Your task to perform on an android device: turn pop-ups on in chrome Image 0: 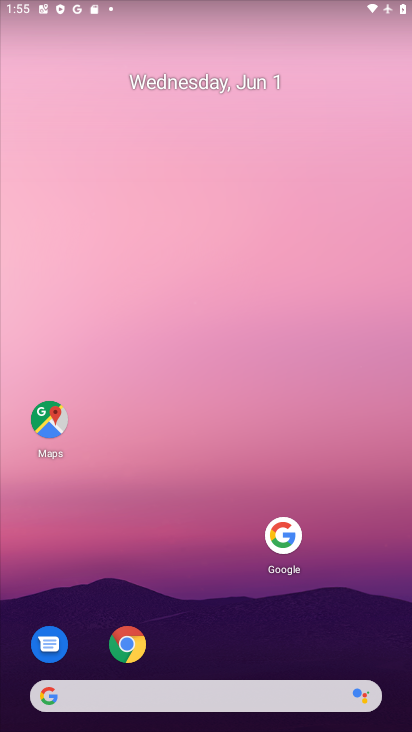
Step 0: press home button
Your task to perform on an android device: turn pop-ups on in chrome Image 1: 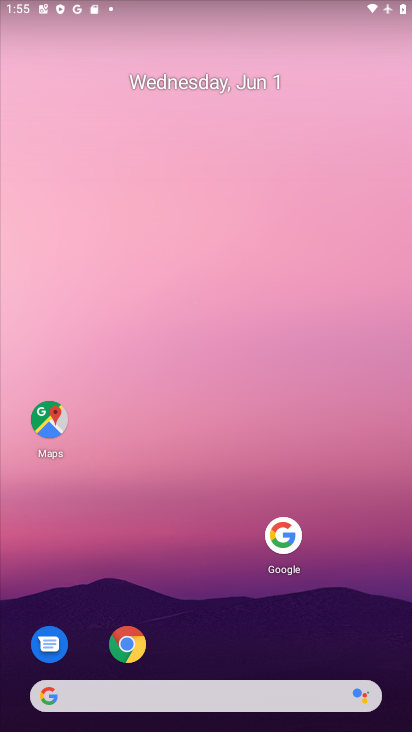
Step 1: click (128, 647)
Your task to perform on an android device: turn pop-ups on in chrome Image 2: 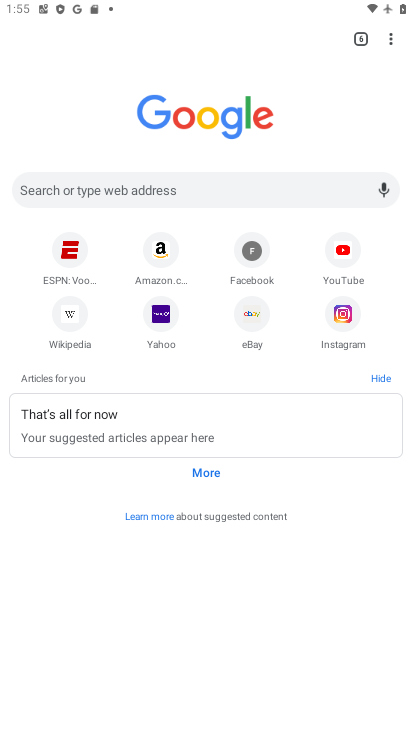
Step 2: drag from (391, 40) to (299, 357)
Your task to perform on an android device: turn pop-ups on in chrome Image 3: 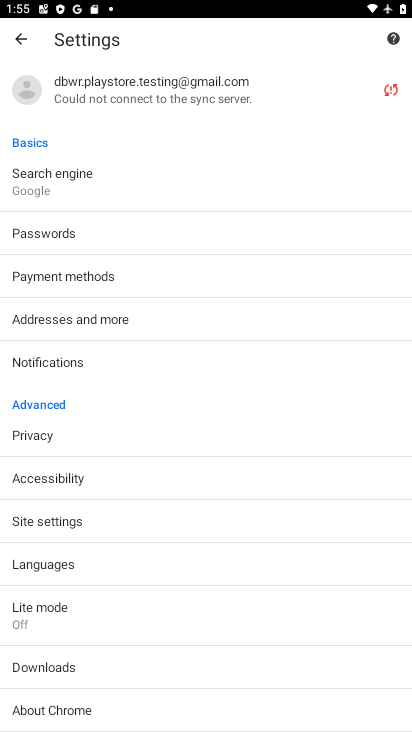
Step 3: click (66, 524)
Your task to perform on an android device: turn pop-ups on in chrome Image 4: 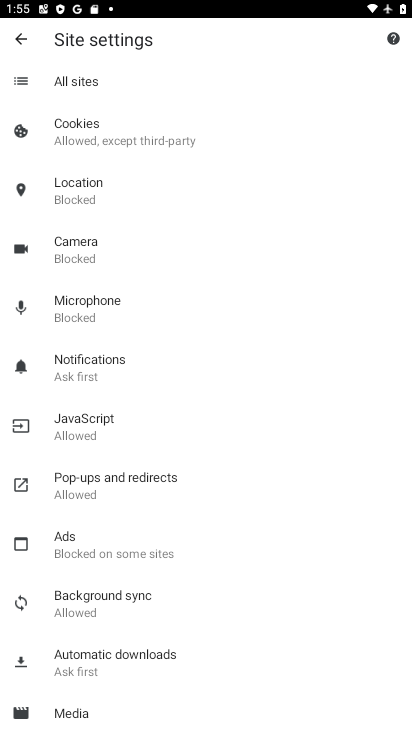
Step 4: click (103, 479)
Your task to perform on an android device: turn pop-ups on in chrome Image 5: 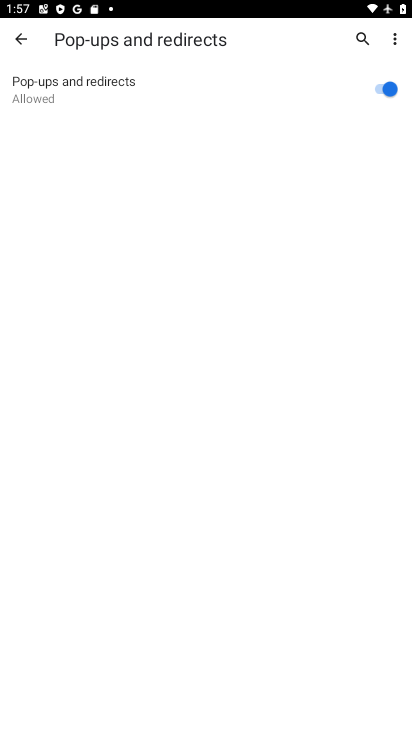
Step 5: task complete